Your task to perform on an android device: open chrome and create a bookmark for the current page Image 0: 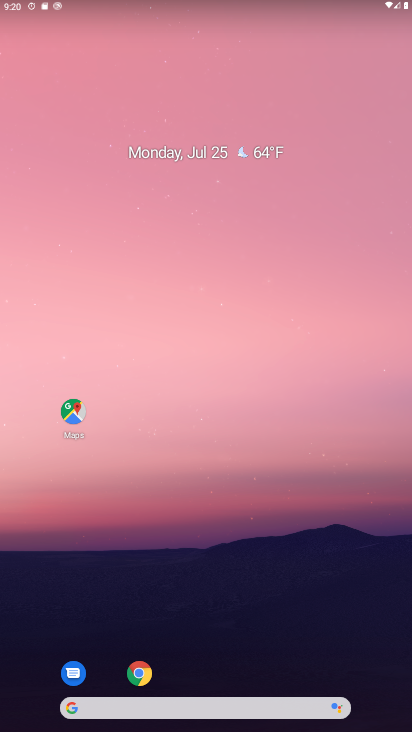
Step 0: click (136, 668)
Your task to perform on an android device: open chrome and create a bookmark for the current page Image 1: 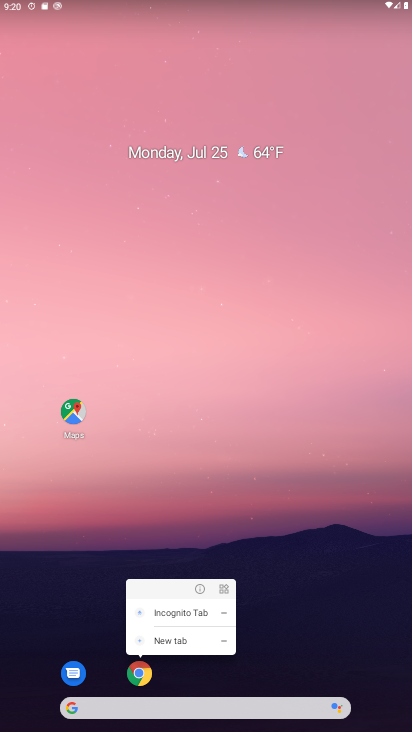
Step 1: click (136, 669)
Your task to perform on an android device: open chrome and create a bookmark for the current page Image 2: 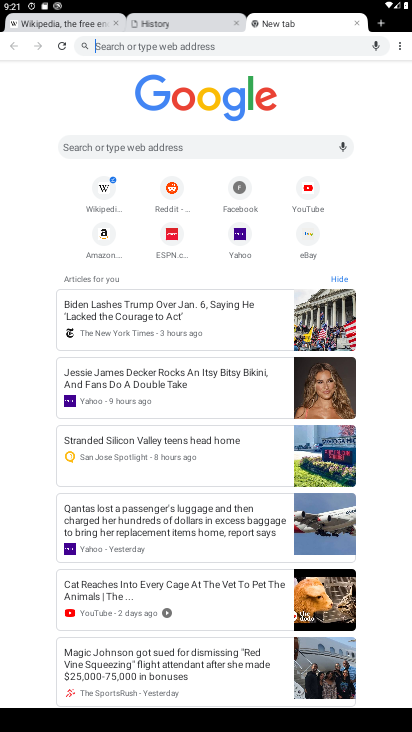
Step 2: click (175, 23)
Your task to perform on an android device: open chrome and create a bookmark for the current page Image 3: 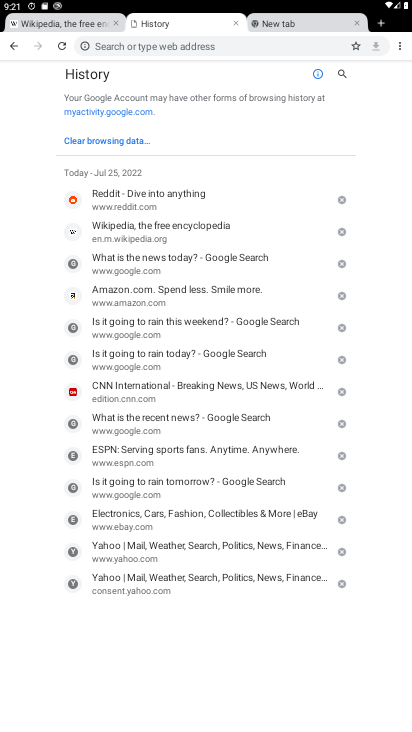
Step 3: click (355, 48)
Your task to perform on an android device: open chrome and create a bookmark for the current page Image 4: 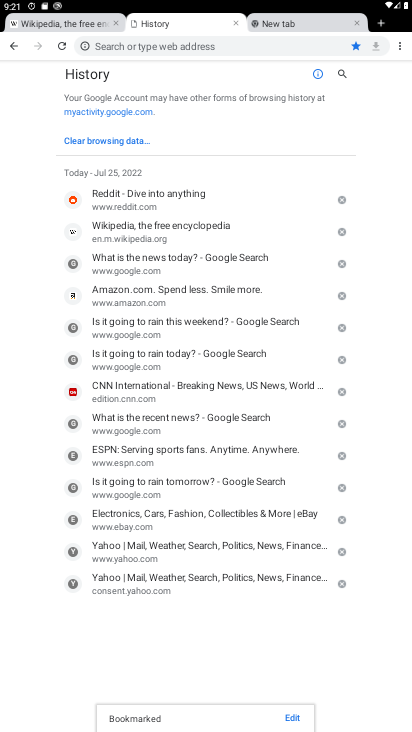
Step 4: task complete